Your task to perform on an android device: Open my contact list Image 0: 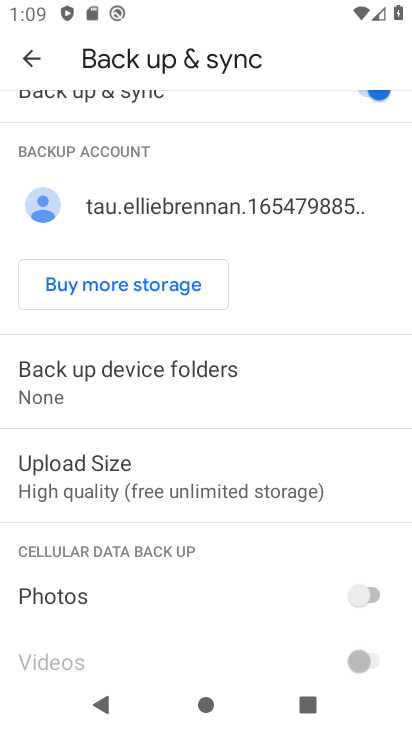
Step 0: press home button
Your task to perform on an android device: Open my contact list Image 1: 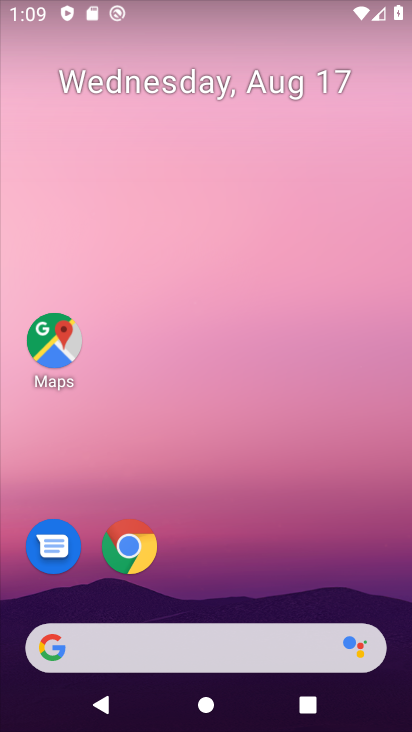
Step 1: drag from (228, 526) to (228, 305)
Your task to perform on an android device: Open my contact list Image 2: 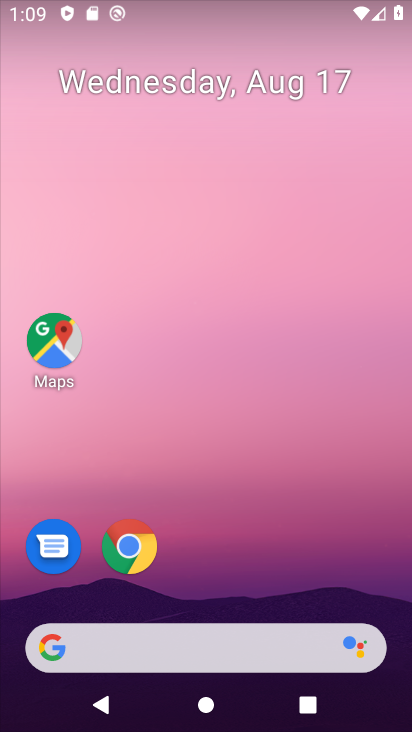
Step 2: drag from (224, 571) to (229, 179)
Your task to perform on an android device: Open my contact list Image 3: 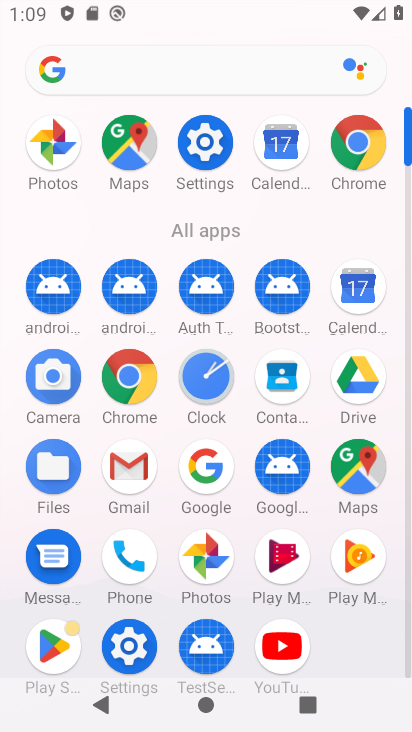
Step 3: click (284, 384)
Your task to perform on an android device: Open my contact list Image 4: 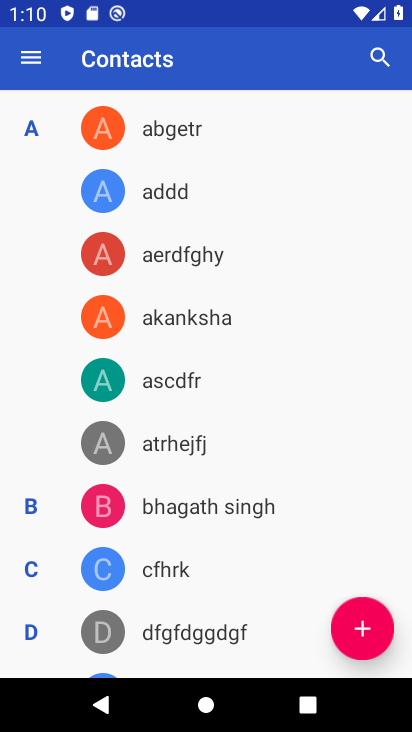
Step 4: task complete